Your task to perform on an android device: Open Chrome and go to the settings page Image 0: 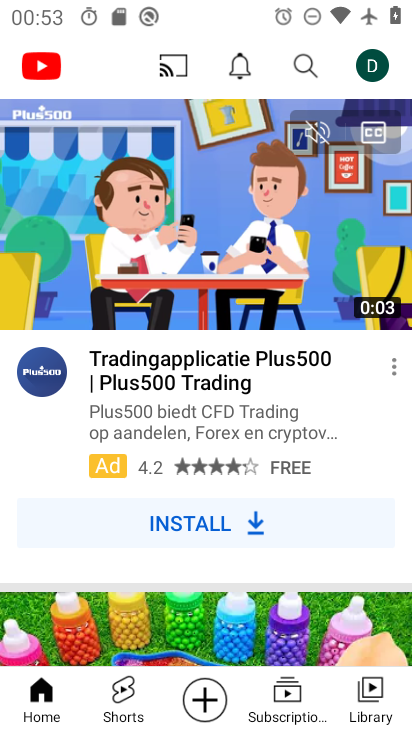
Step 0: press home button
Your task to perform on an android device: Open Chrome and go to the settings page Image 1: 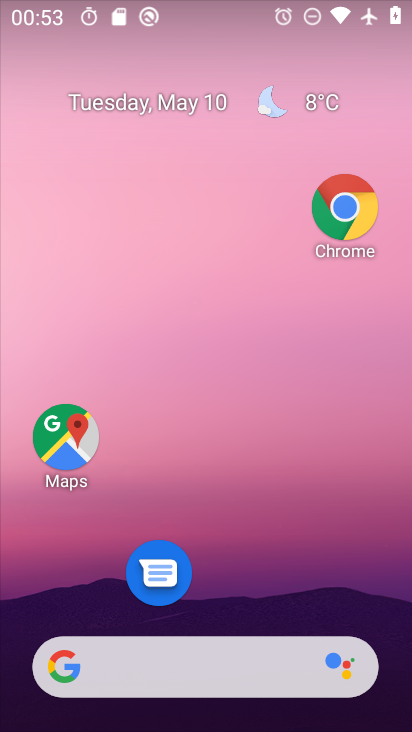
Step 1: drag from (311, 562) to (274, 120)
Your task to perform on an android device: Open Chrome and go to the settings page Image 2: 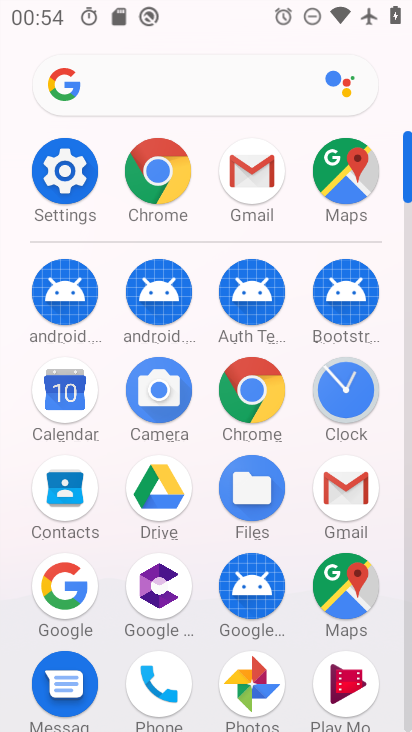
Step 2: click (159, 174)
Your task to perform on an android device: Open Chrome and go to the settings page Image 3: 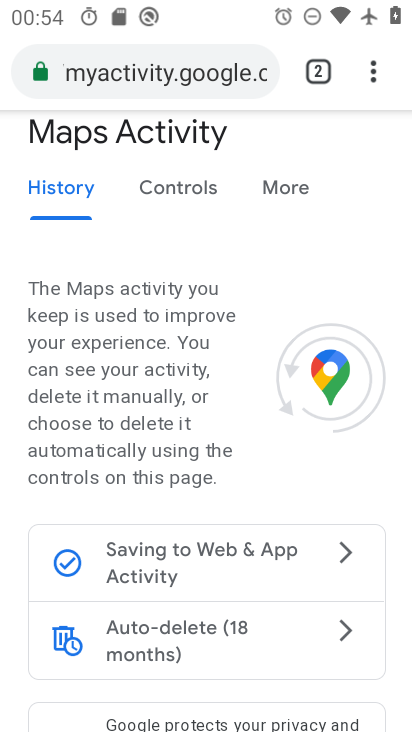
Step 3: task complete